Your task to perform on an android device: turn off priority inbox in the gmail app Image 0: 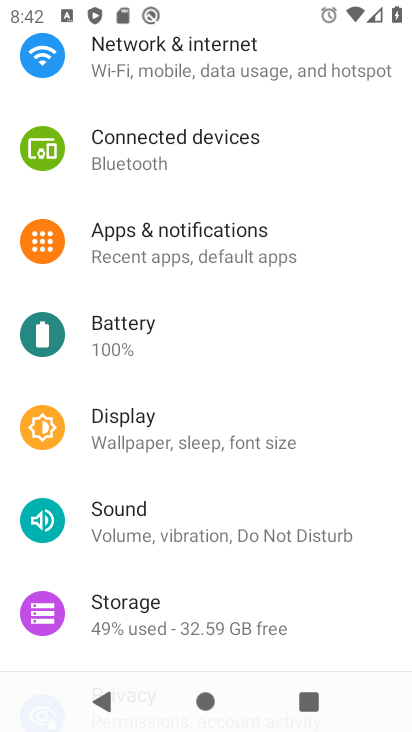
Step 0: press home button
Your task to perform on an android device: turn off priority inbox in the gmail app Image 1: 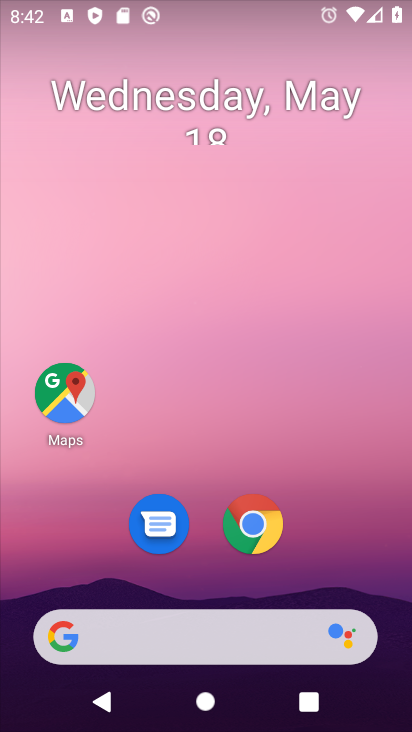
Step 1: drag from (201, 487) to (236, 52)
Your task to perform on an android device: turn off priority inbox in the gmail app Image 2: 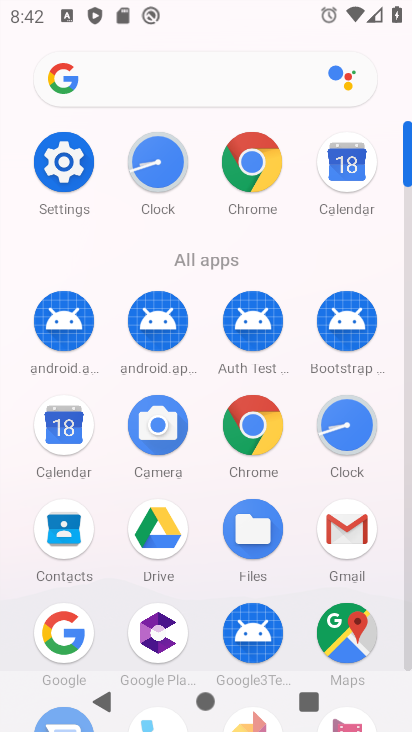
Step 2: click (348, 522)
Your task to perform on an android device: turn off priority inbox in the gmail app Image 3: 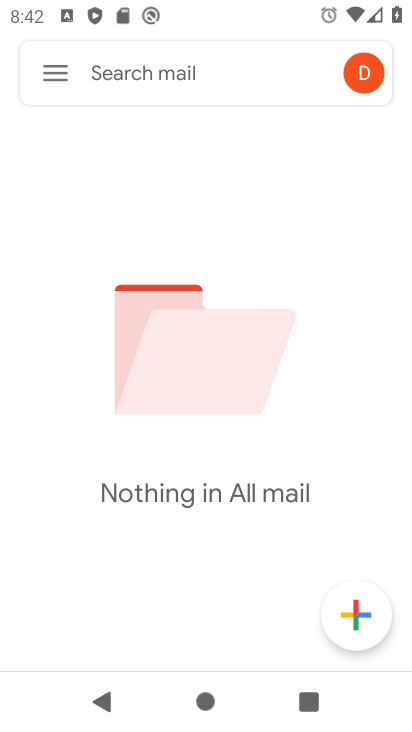
Step 3: click (60, 71)
Your task to perform on an android device: turn off priority inbox in the gmail app Image 4: 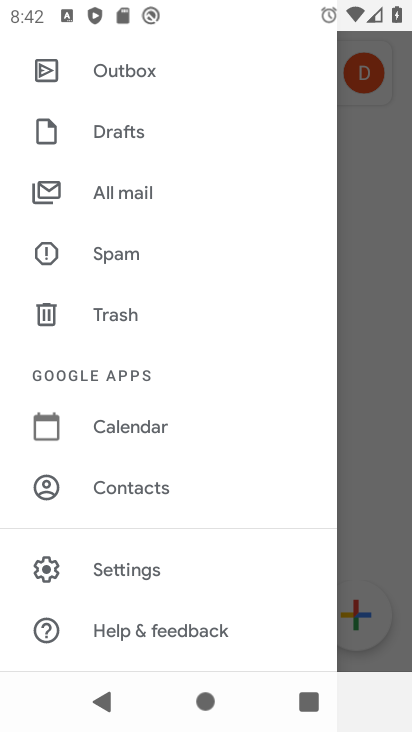
Step 4: click (196, 576)
Your task to perform on an android device: turn off priority inbox in the gmail app Image 5: 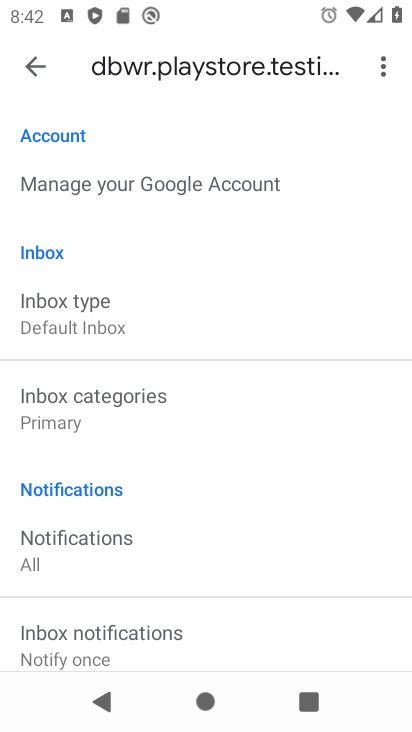
Step 5: click (93, 320)
Your task to perform on an android device: turn off priority inbox in the gmail app Image 6: 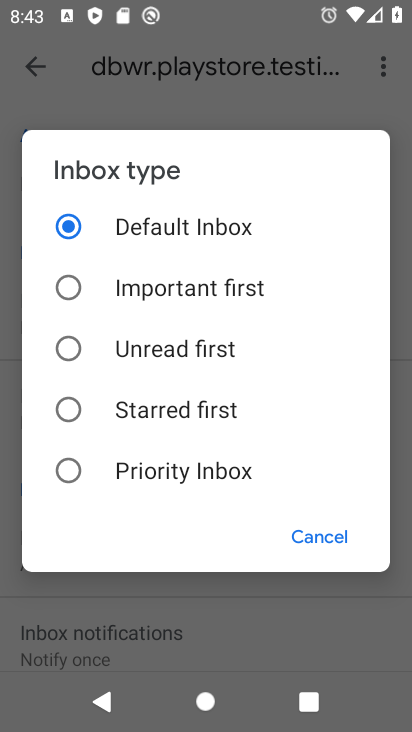
Step 6: click (336, 534)
Your task to perform on an android device: turn off priority inbox in the gmail app Image 7: 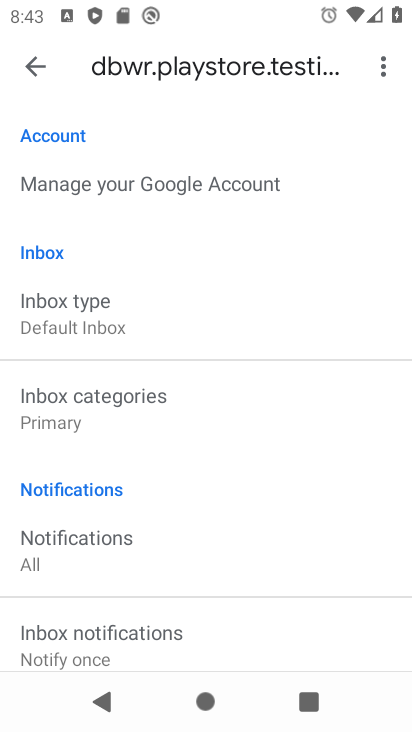
Step 7: task complete